Your task to perform on an android device: Open Chrome and go to the settings page Image 0: 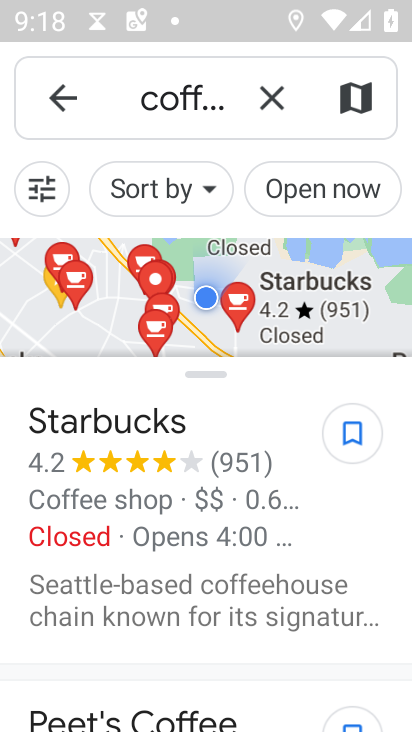
Step 0: click (67, 102)
Your task to perform on an android device: Open Chrome and go to the settings page Image 1: 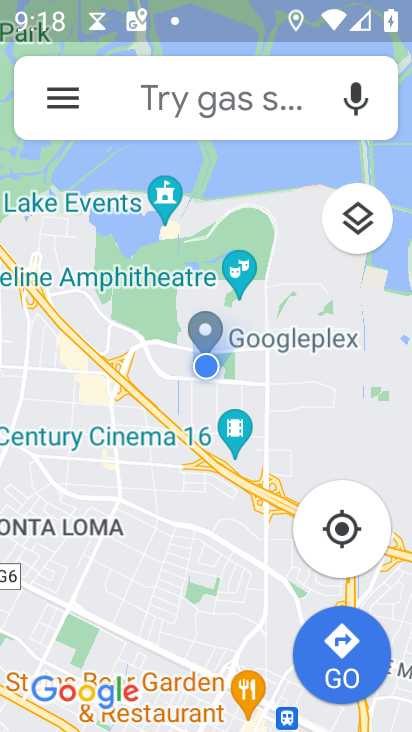
Step 1: press back button
Your task to perform on an android device: Open Chrome and go to the settings page Image 2: 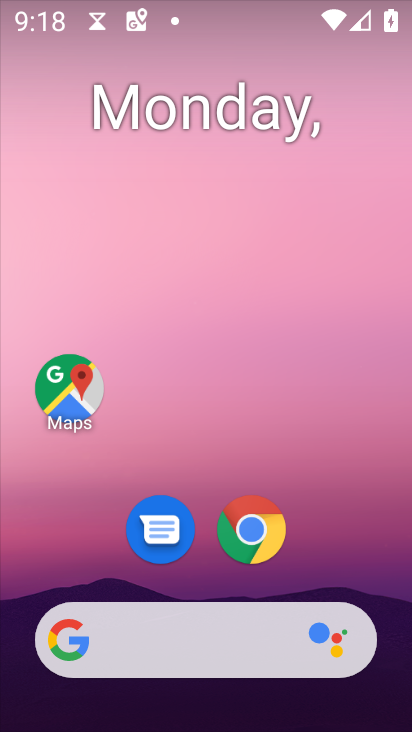
Step 2: drag from (231, 672) to (146, 63)
Your task to perform on an android device: Open Chrome and go to the settings page Image 3: 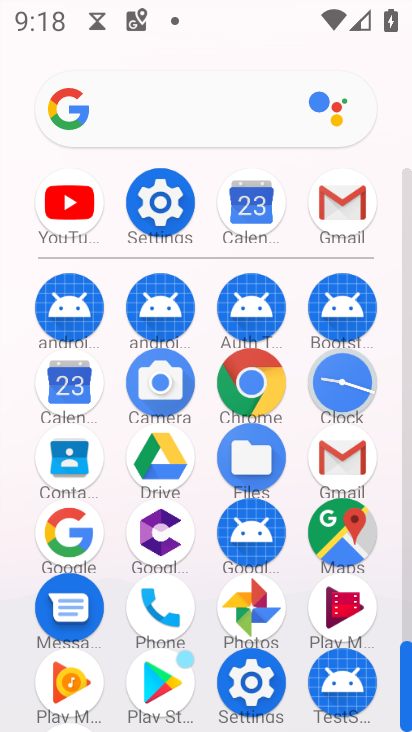
Step 3: click (160, 197)
Your task to perform on an android device: Open Chrome and go to the settings page Image 4: 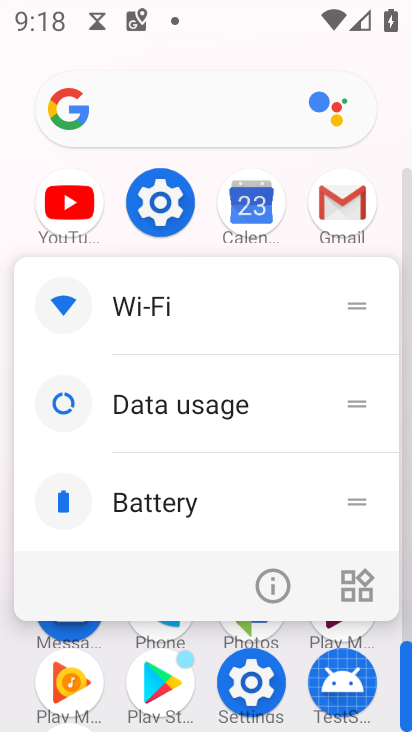
Step 4: click (139, 308)
Your task to perform on an android device: Open Chrome and go to the settings page Image 5: 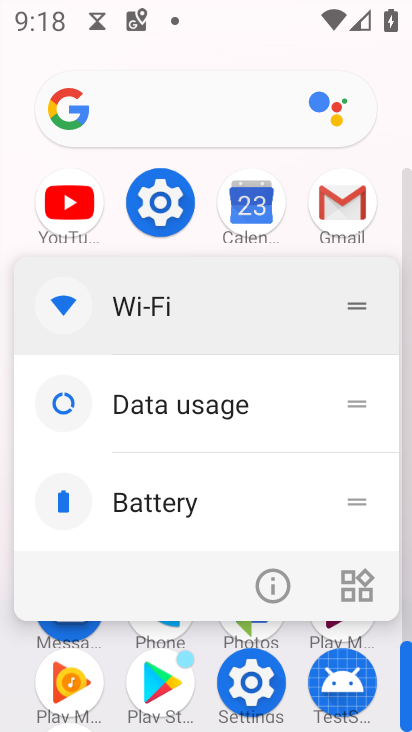
Step 5: click (139, 307)
Your task to perform on an android device: Open Chrome and go to the settings page Image 6: 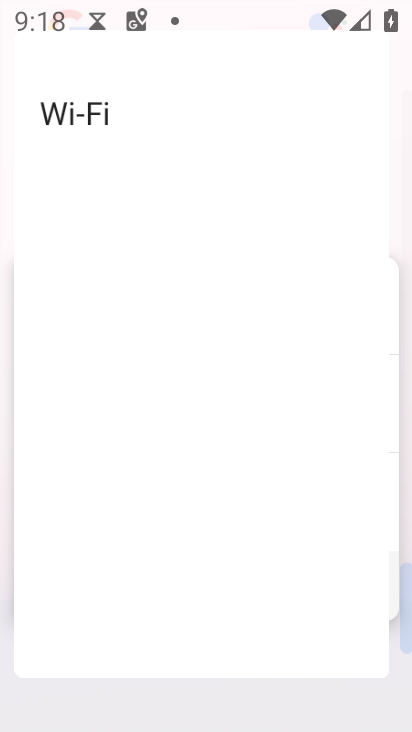
Step 6: click (139, 307)
Your task to perform on an android device: Open Chrome and go to the settings page Image 7: 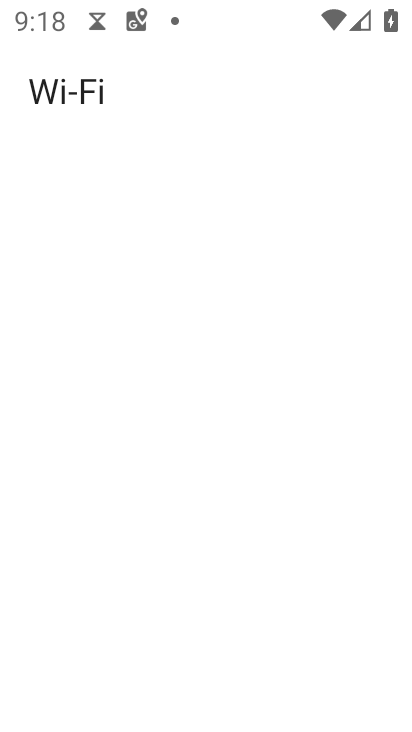
Step 7: click (139, 306)
Your task to perform on an android device: Open Chrome and go to the settings page Image 8: 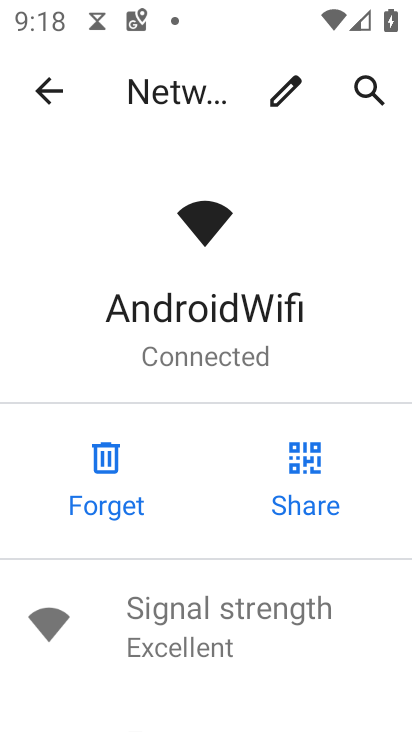
Step 8: click (41, 96)
Your task to perform on an android device: Open Chrome and go to the settings page Image 9: 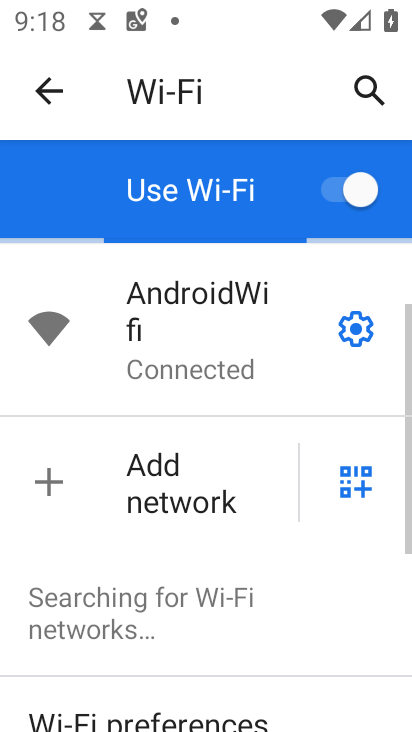
Step 9: click (45, 102)
Your task to perform on an android device: Open Chrome and go to the settings page Image 10: 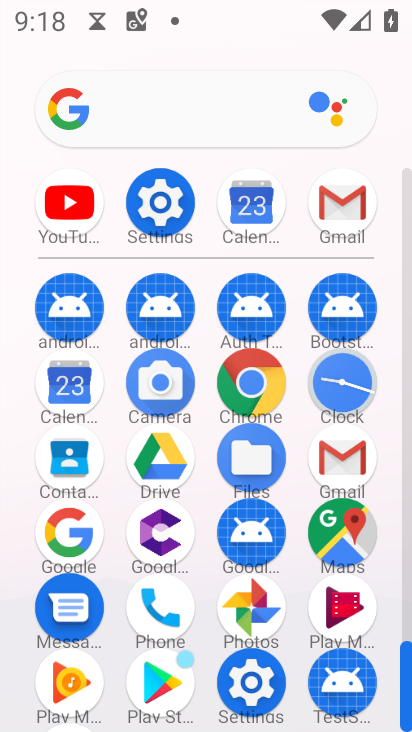
Step 10: click (158, 184)
Your task to perform on an android device: Open Chrome and go to the settings page Image 11: 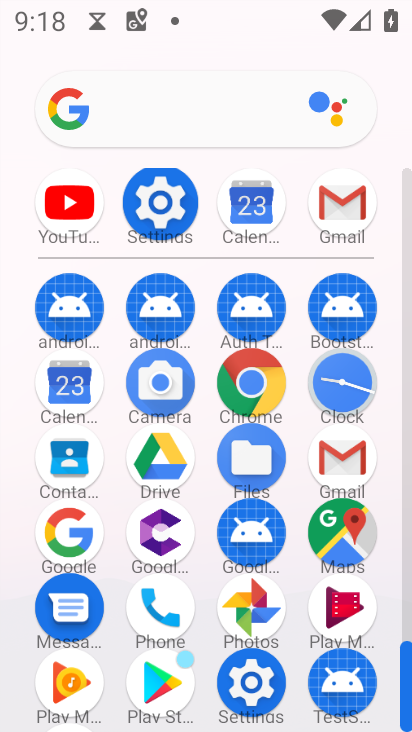
Step 11: click (160, 185)
Your task to perform on an android device: Open Chrome and go to the settings page Image 12: 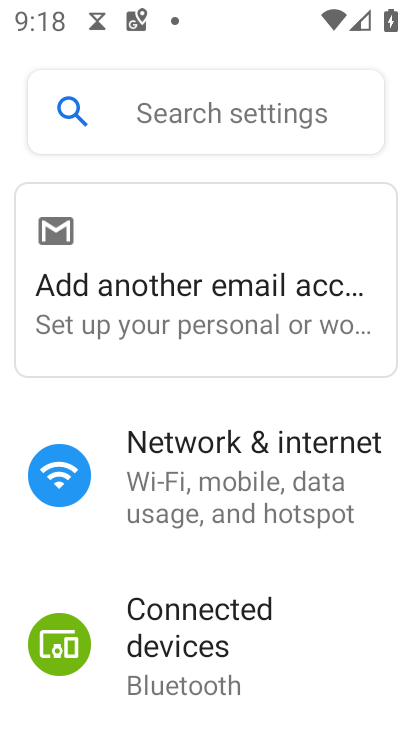
Step 12: drag from (205, 587) to (193, 104)
Your task to perform on an android device: Open Chrome and go to the settings page Image 13: 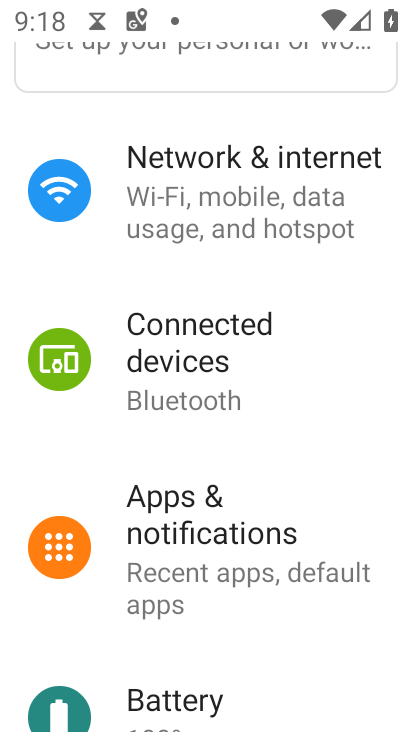
Step 13: drag from (187, 635) to (180, 147)
Your task to perform on an android device: Open Chrome and go to the settings page Image 14: 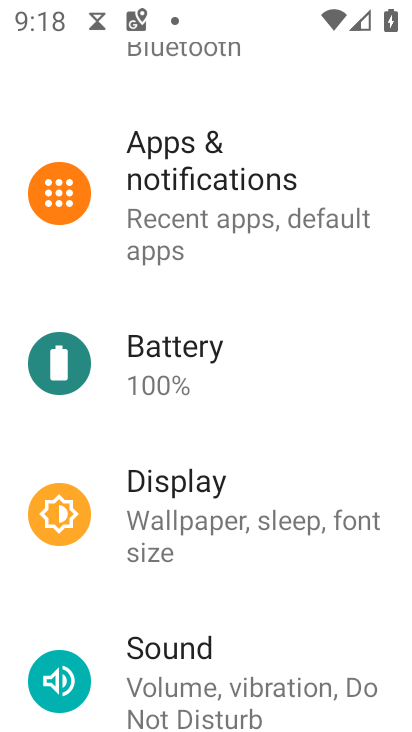
Step 14: drag from (237, 610) to (237, 307)
Your task to perform on an android device: Open Chrome and go to the settings page Image 15: 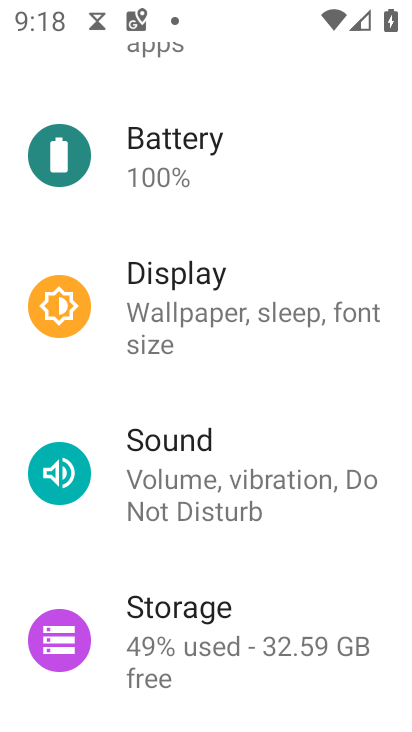
Step 15: drag from (255, 654) to (247, 69)
Your task to perform on an android device: Open Chrome and go to the settings page Image 16: 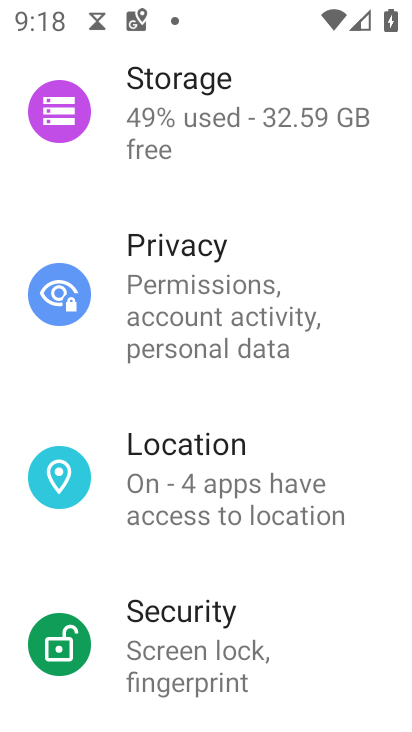
Step 16: click (268, 22)
Your task to perform on an android device: Open Chrome and go to the settings page Image 17: 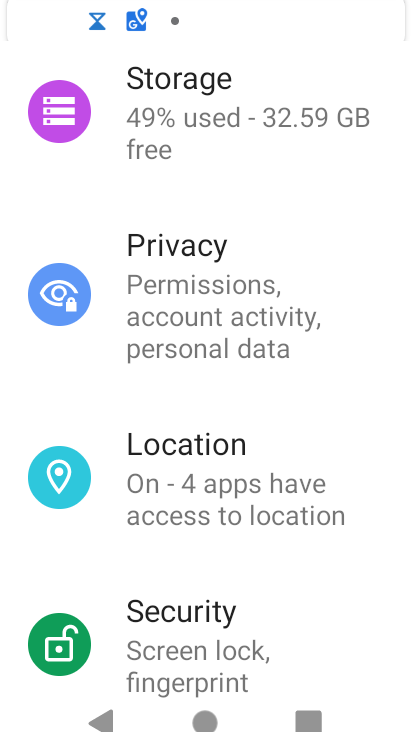
Step 17: task complete